Your task to perform on an android device: Open CNN.com Image 0: 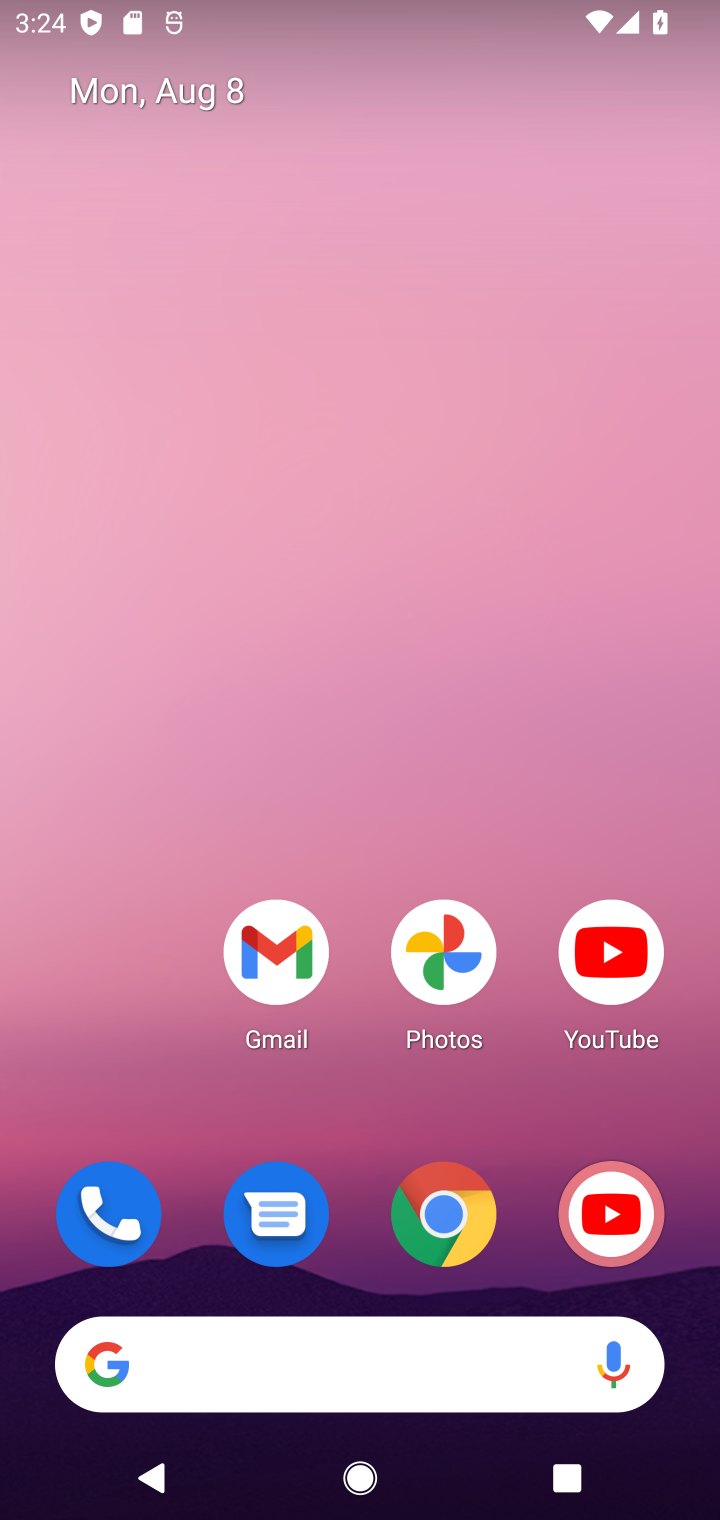
Step 0: click (455, 1218)
Your task to perform on an android device: Open CNN.com Image 1: 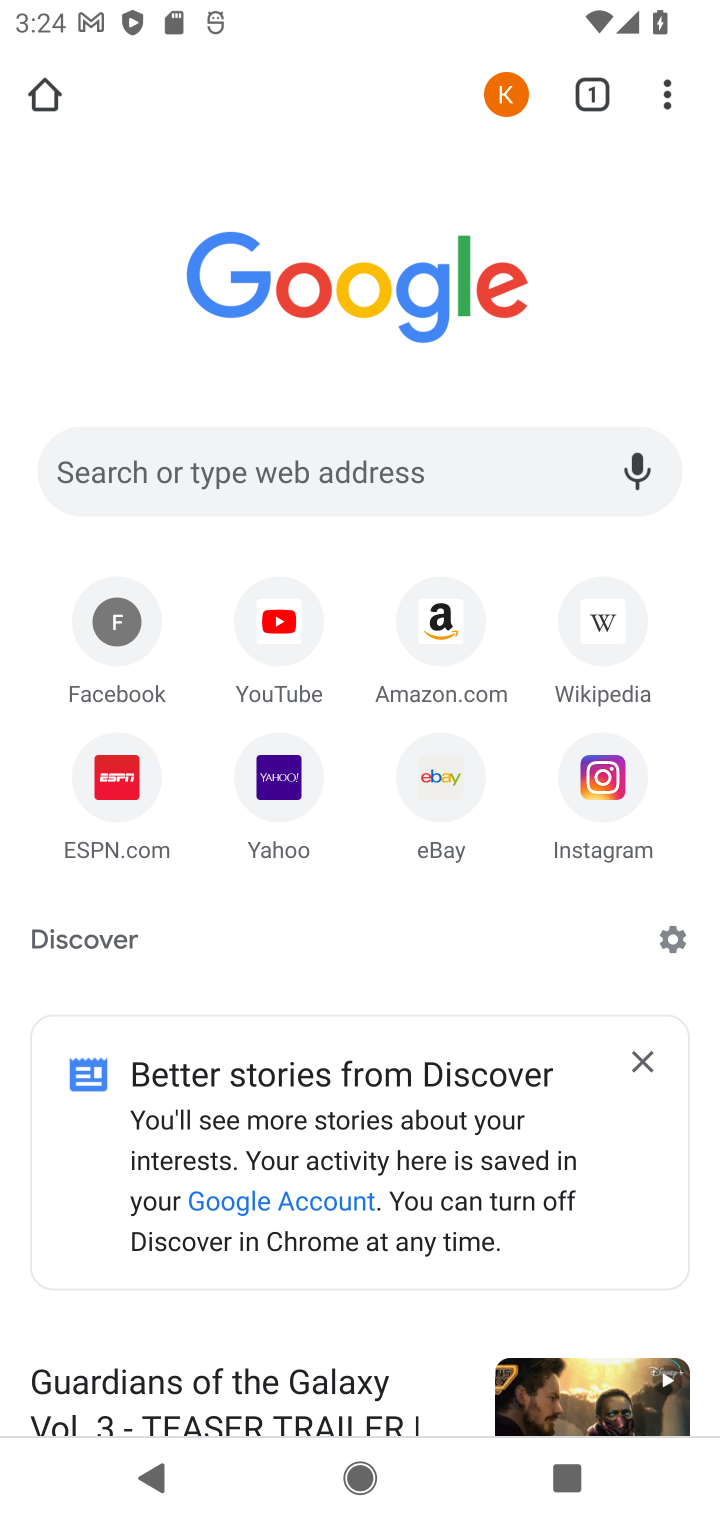
Step 1: click (477, 456)
Your task to perform on an android device: Open CNN.com Image 2: 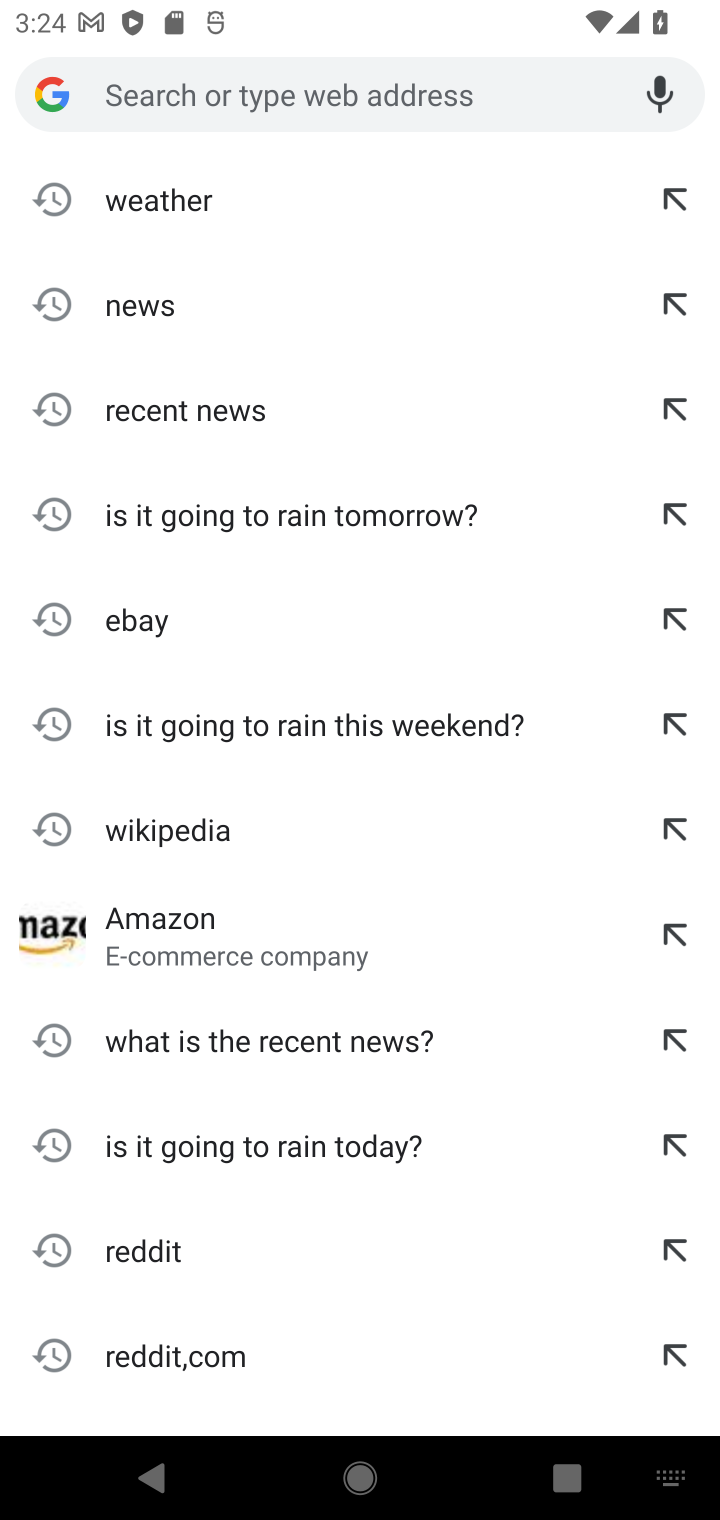
Step 2: type "CNN.com"
Your task to perform on an android device: Open CNN.com Image 3: 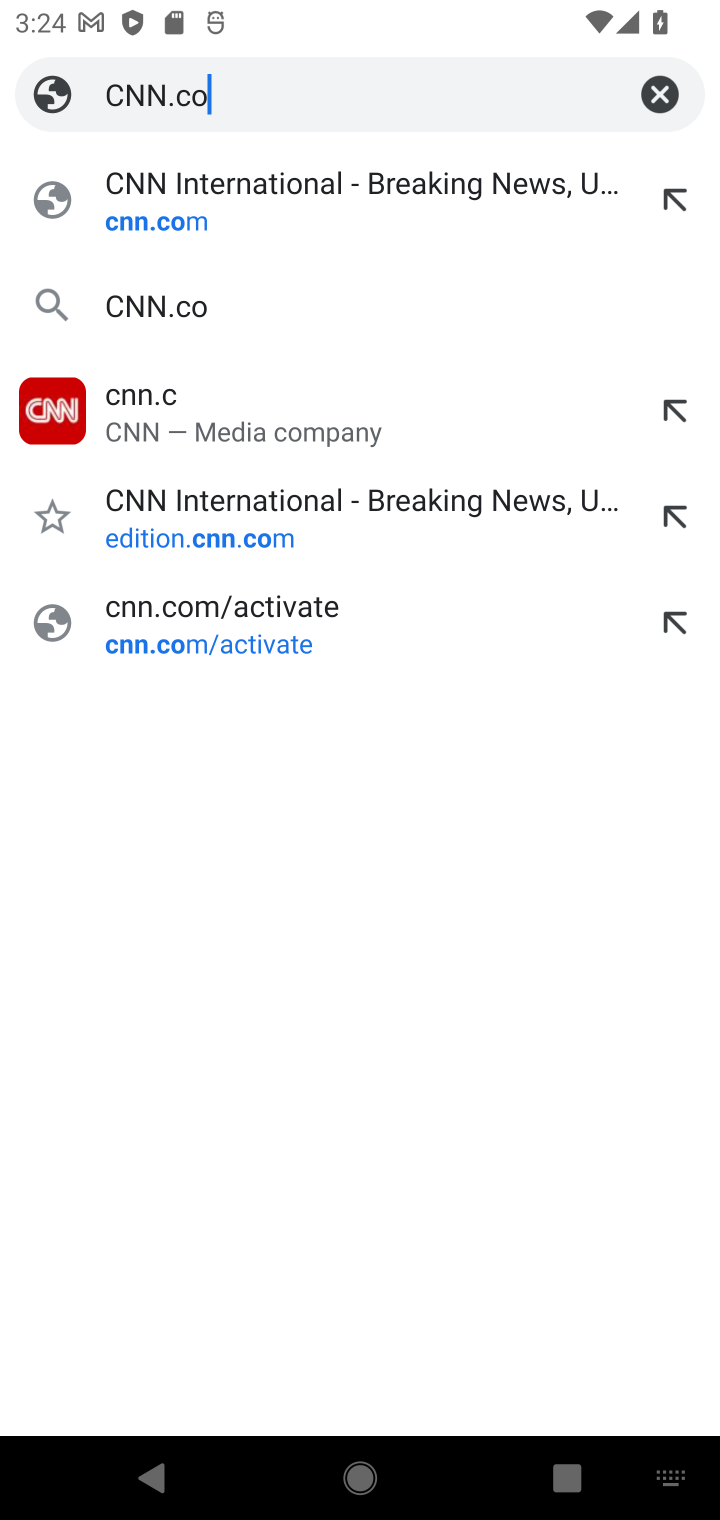
Step 3: type ""
Your task to perform on an android device: Open CNN.com Image 4: 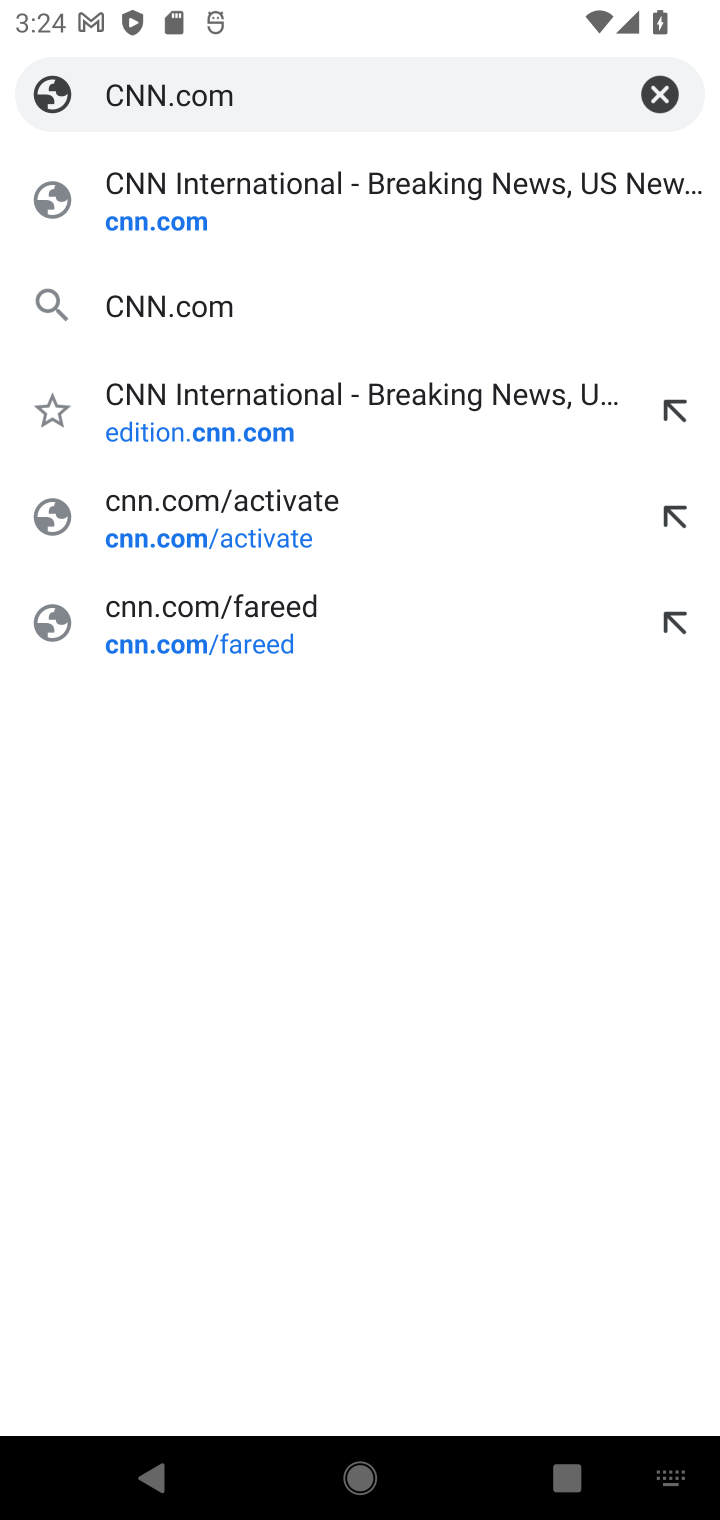
Step 4: click (266, 168)
Your task to perform on an android device: Open CNN.com Image 5: 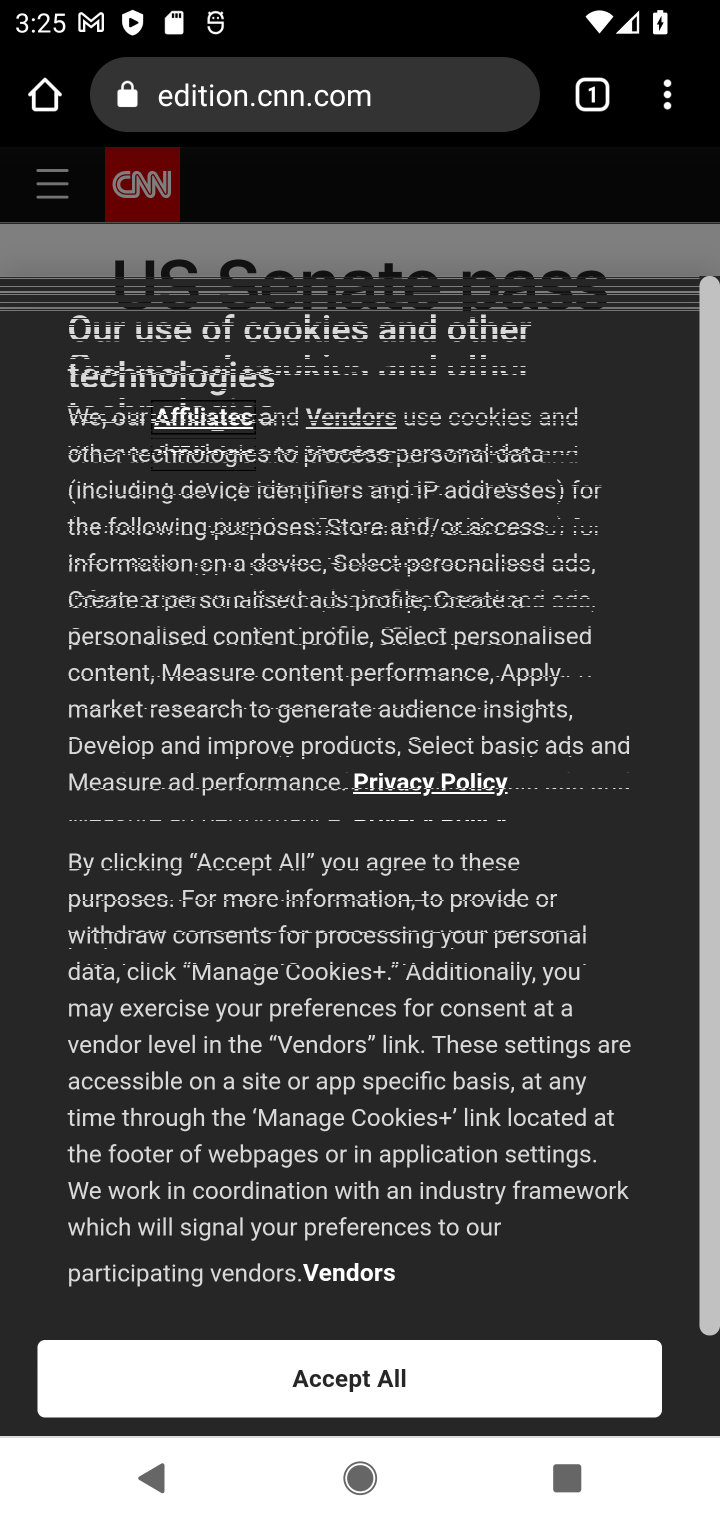
Step 5: task complete